Your task to perform on an android device: Go to location settings Image 0: 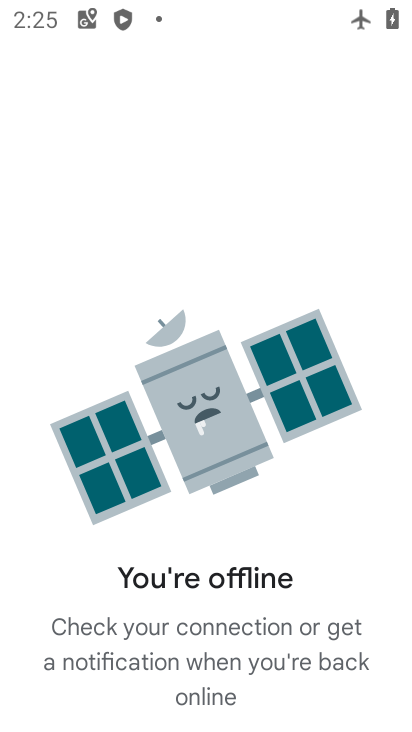
Step 0: press home button
Your task to perform on an android device: Go to location settings Image 1: 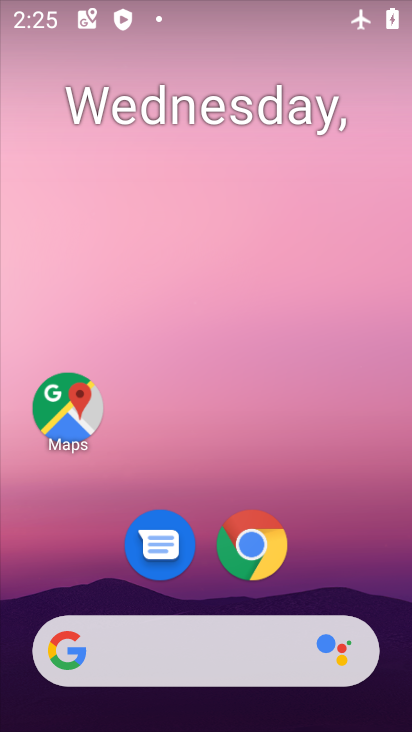
Step 1: drag from (307, 548) to (284, 173)
Your task to perform on an android device: Go to location settings Image 2: 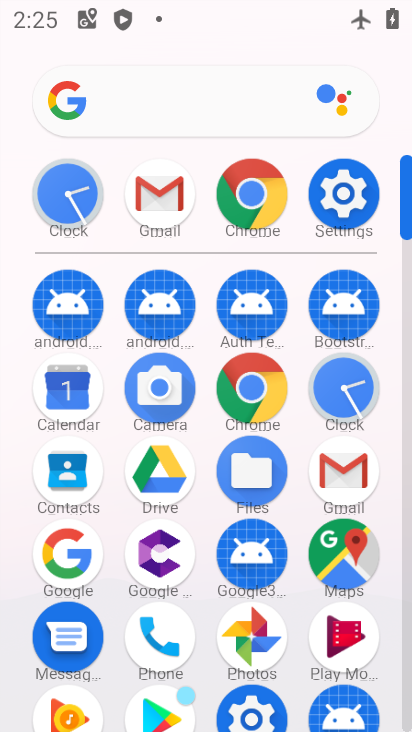
Step 2: click (358, 203)
Your task to perform on an android device: Go to location settings Image 3: 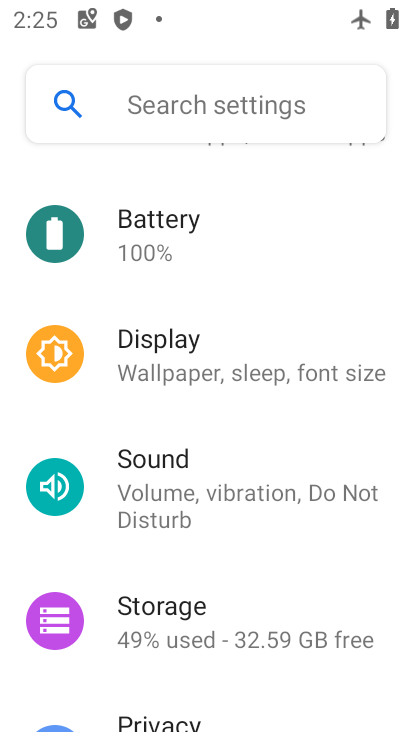
Step 3: drag from (184, 554) to (251, 198)
Your task to perform on an android device: Go to location settings Image 4: 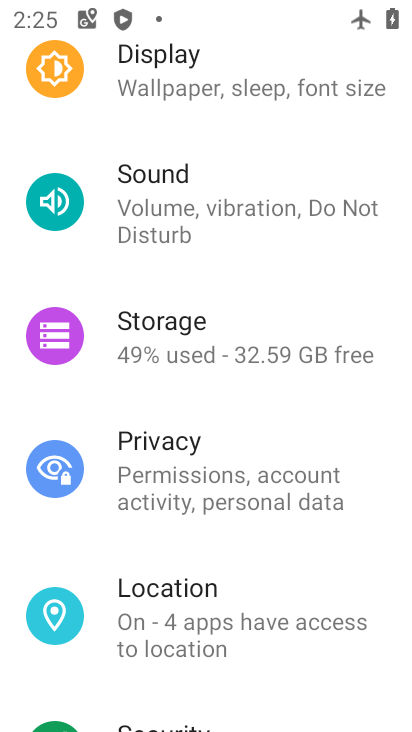
Step 4: click (169, 624)
Your task to perform on an android device: Go to location settings Image 5: 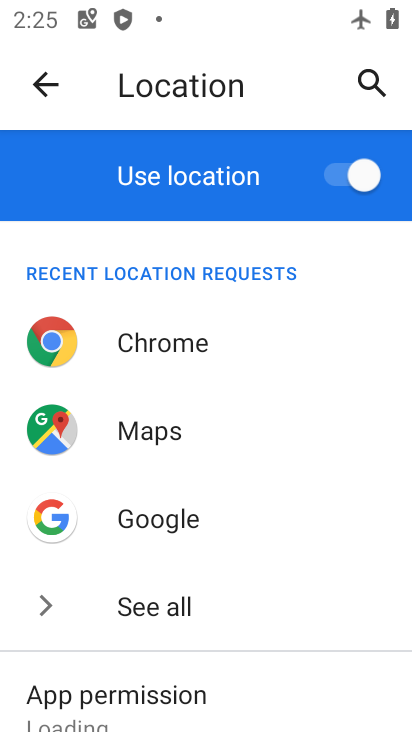
Step 5: task complete